Your task to perform on an android device: toggle improve location accuracy Image 0: 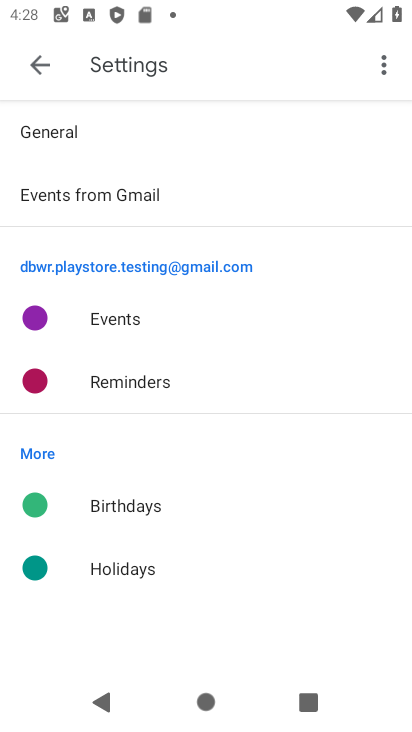
Step 0: press home button
Your task to perform on an android device: toggle improve location accuracy Image 1: 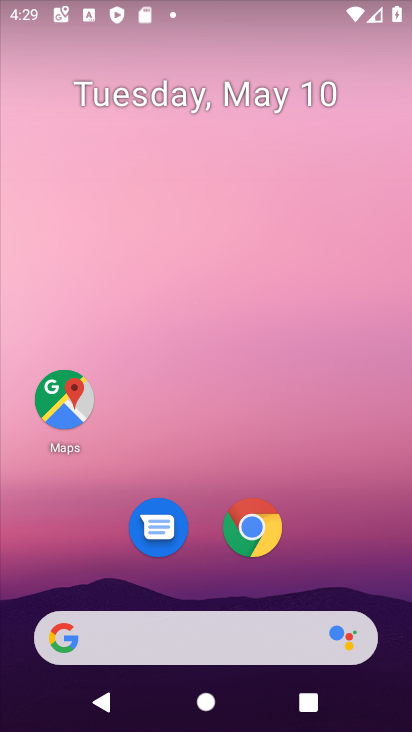
Step 1: drag from (336, 522) to (352, 6)
Your task to perform on an android device: toggle improve location accuracy Image 2: 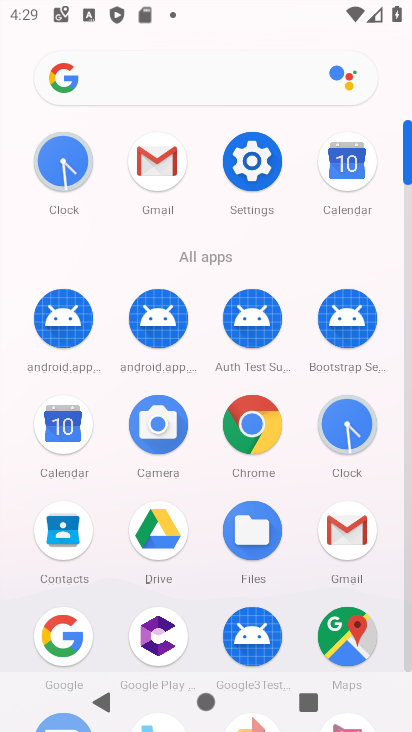
Step 2: click (264, 148)
Your task to perform on an android device: toggle improve location accuracy Image 3: 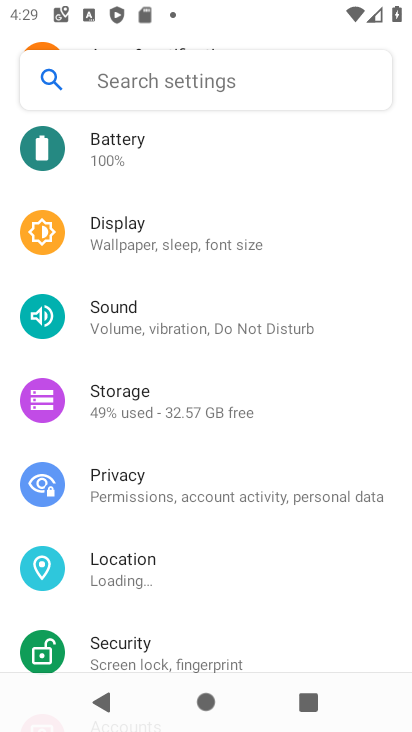
Step 3: click (156, 560)
Your task to perform on an android device: toggle improve location accuracy Image 4: 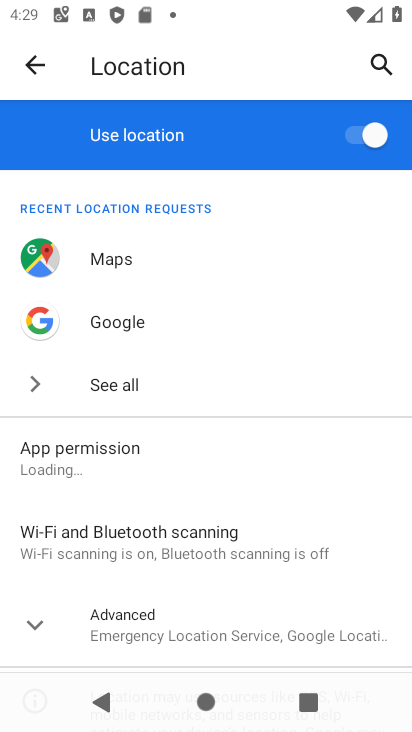
Step 4: click (34, 618)
Your task to perform on an android device: toggle improve location accuracy Image 5: 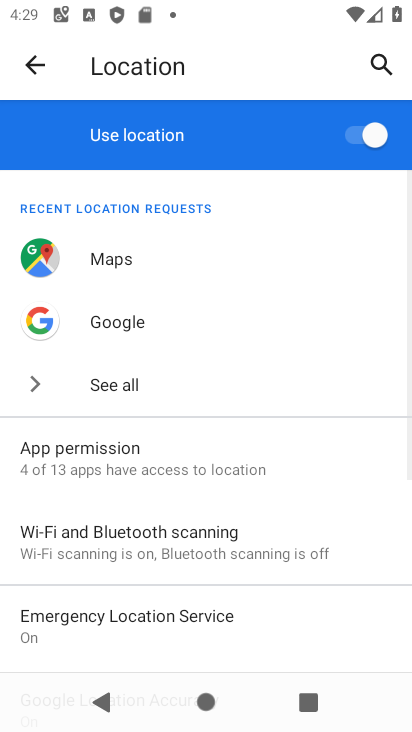
Step 5: drag from (221, 578) to (247, 276)
Your task to perform on an android device: toggle improve location accuracy Image 6: 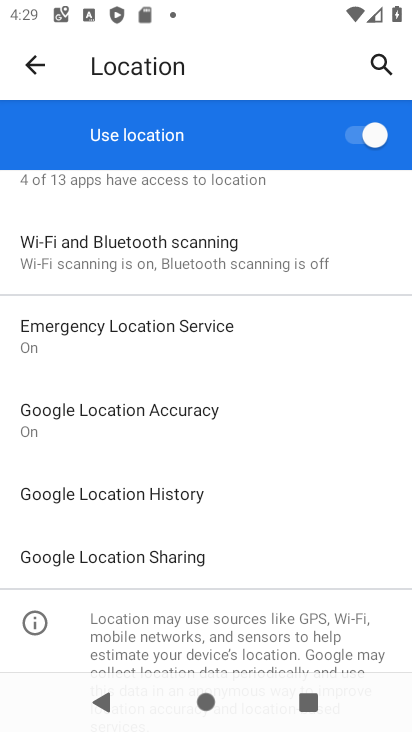
Step 6: click (216, 411)
Your task to perform on an android device: toggle improve location accuracy Image 7: 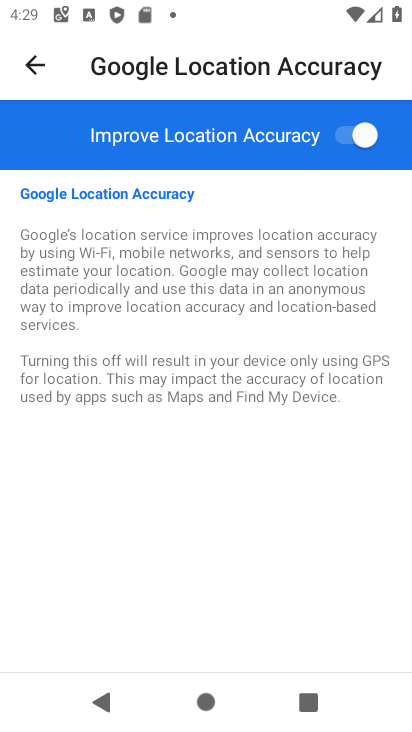
Step 7: click (360, 131)
Your task to perform on an android device: toggle improve location accuracy Image 8: 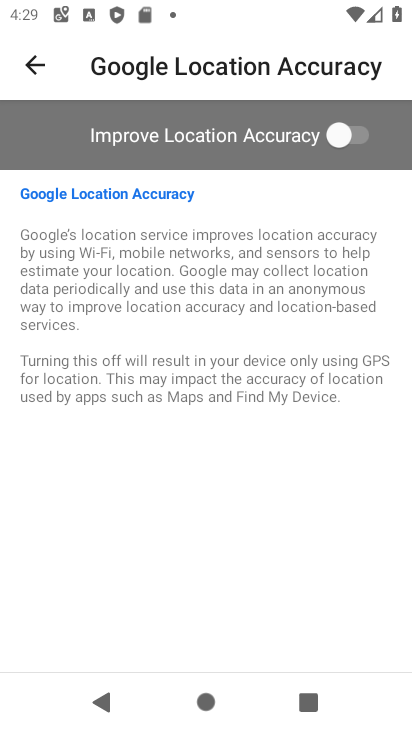
Step 8: task complete